Your task to perform on an android device: check the backup settings in the google photos Image 0: 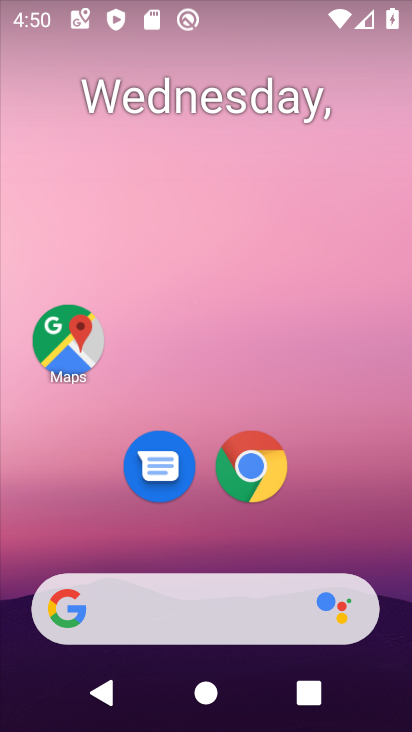
Step 0: drag from (402, 626) to (344, 131)
Your task to perform on an android device: check the backup settings in the google photos Image 1: 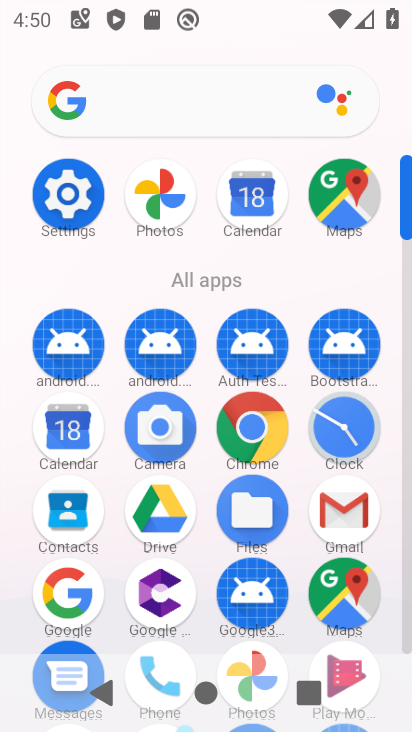
Step 1: click (403, 641)
Your task to perform on an android device: check the backup settings in the google photos Image 2: 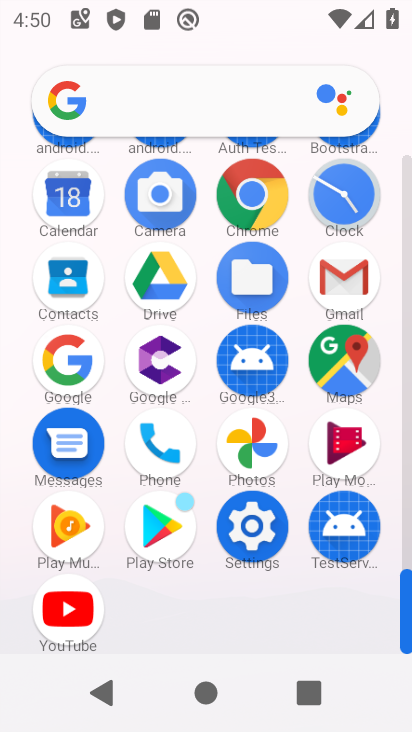
Step 2: click (250, 445)
Your task to perform on an android device: check the backup settings in the google photos Image 3: 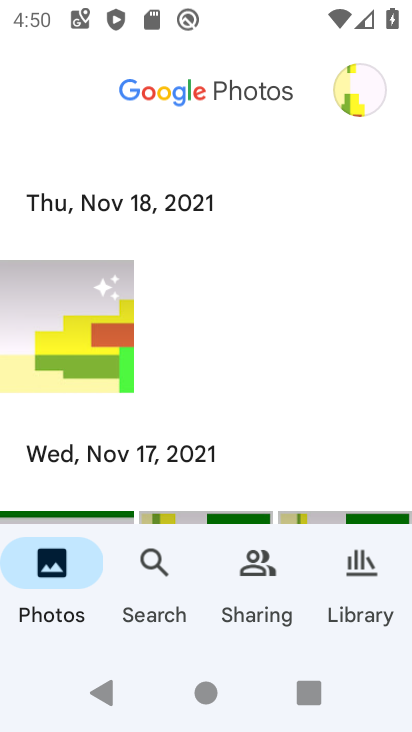
Step 3: click (360, 108)
Your task to perform on an android device: check the backup settings in the google photos Image 4: 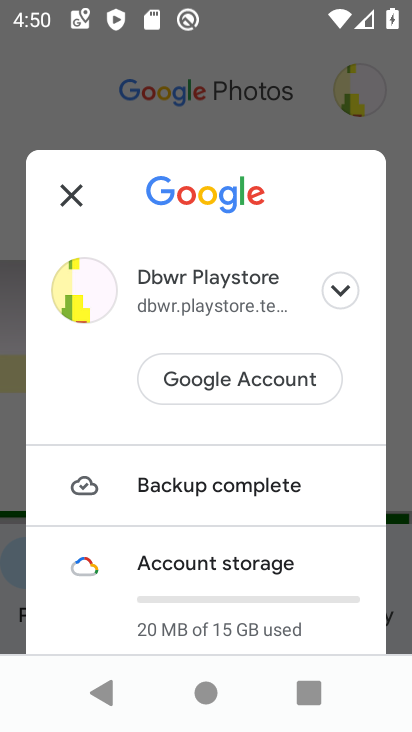
Step 4: drag from (242, 553) to (186, 247)
Your task to perform on an android device: check the backup settings in the google photos Image 5: 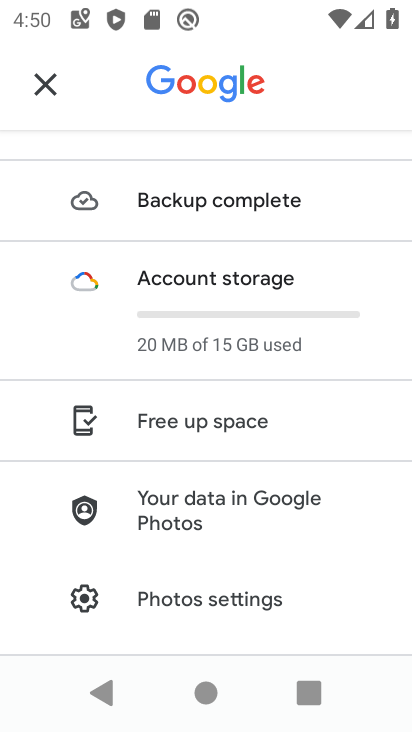
Step 5: click (160, 591)
Your task to perform on an android device: check the backup settings in the google photos Image 6: 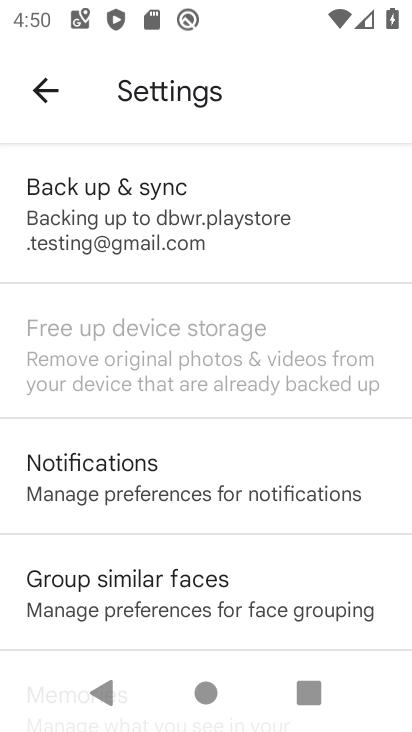
Step 6: click (118, 207)
Your task to perform on an android device: check the backup settings in the google photos Image 7: 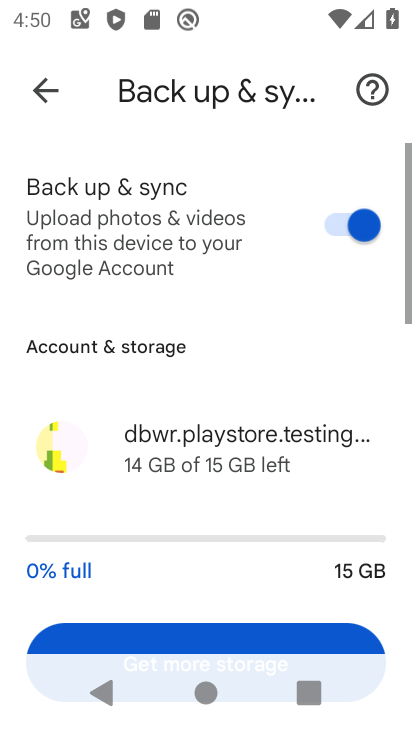
Step 7: task complete